Your task to perform on an android device: Go to location settings Image 0: 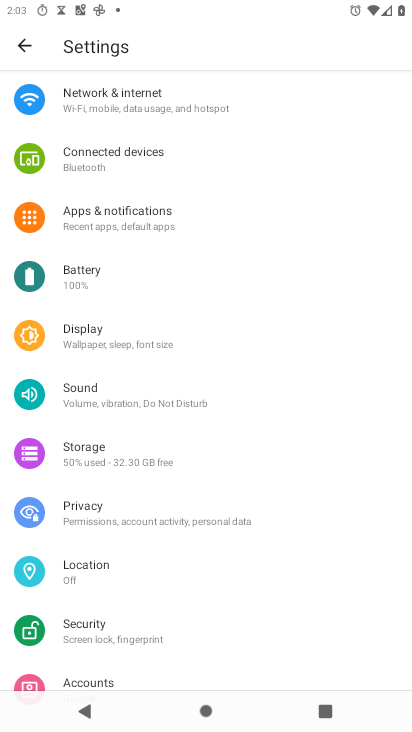
Step 0: click (98, 567)
Your task to perform on an android device: Go to location settings Image 1: 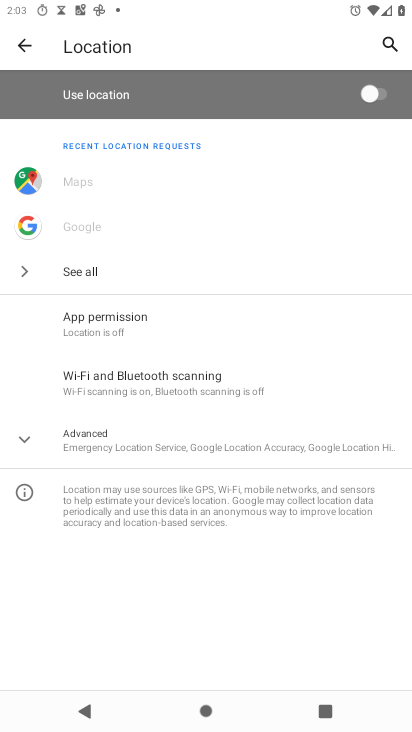
Step 1: task complete